Your task to perform on an android device: Go to CNN.com Image 0: 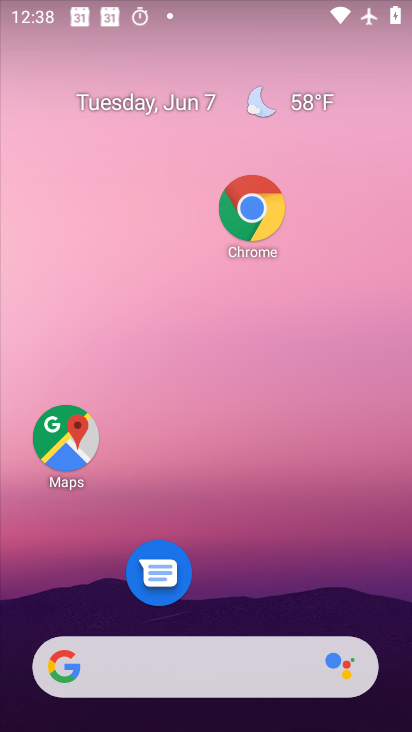
Step 0: click (266, 221)
Your task to perform on an android device: Go to CNN.com Image 1: 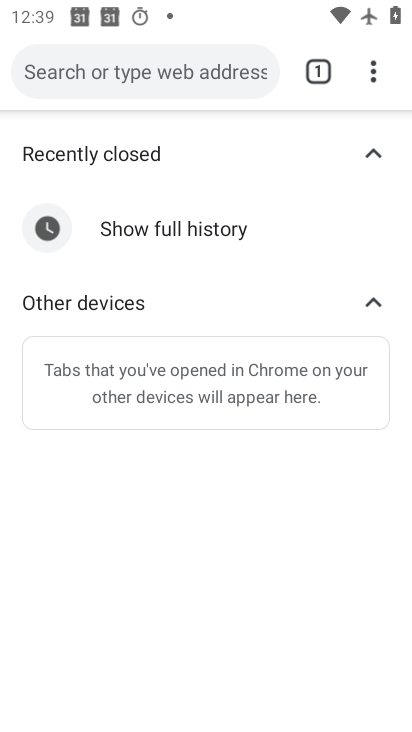
Step 1: click (202, 65)
Your task to perform on an android device: Go to CNN.com Image 2: 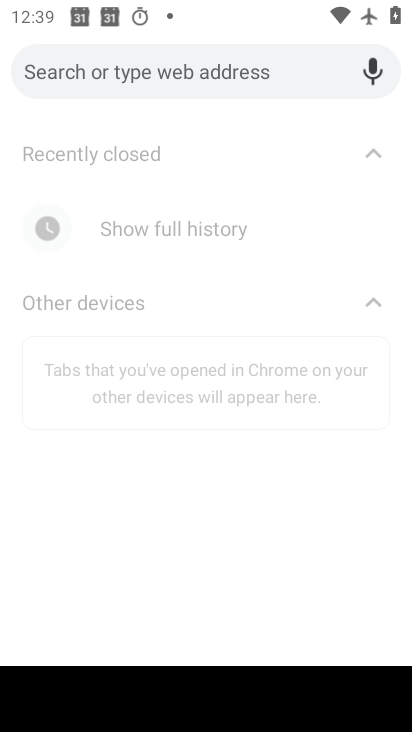
Step 2: type "CNN.com"
Your task to perform on an android device: Go to CNN.com Image 3: 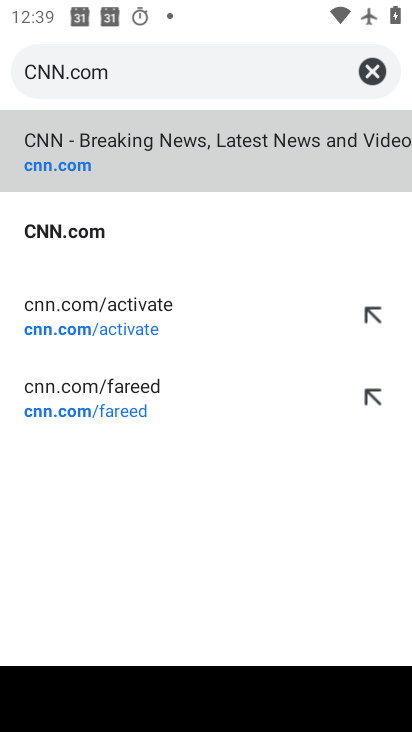
Step 3: click (193, 174)
Your task to perform on an android device: Go to CNN.com Image 4: 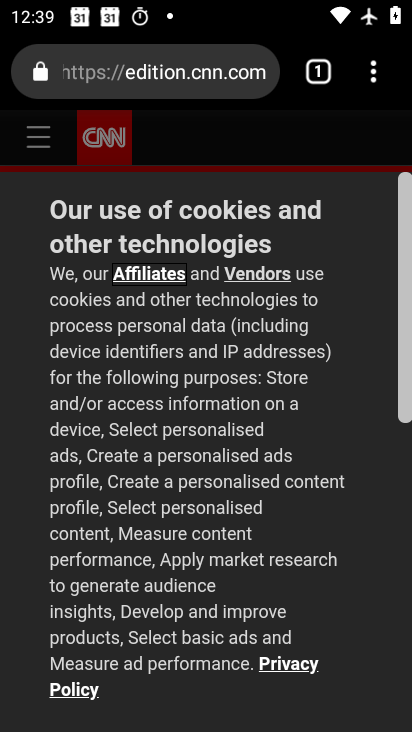
Step 4: task complete